Your task to perform on an android device: show emergency info Image 0: 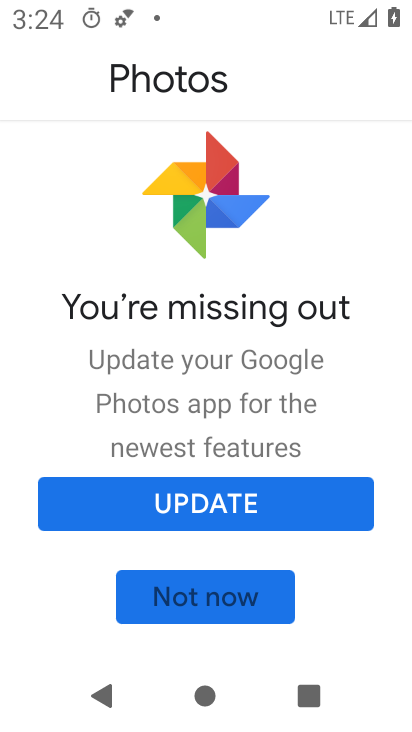
Step 0: press home button
Your task to perform on an android device: show emergency info Image 1: 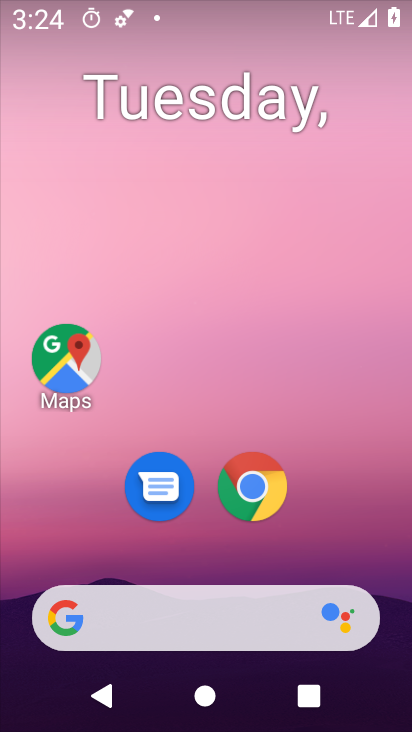
Step 1: drag from (352, 539) to (365, 132)
Your task to perform on an android device: show emergency info Image 2: 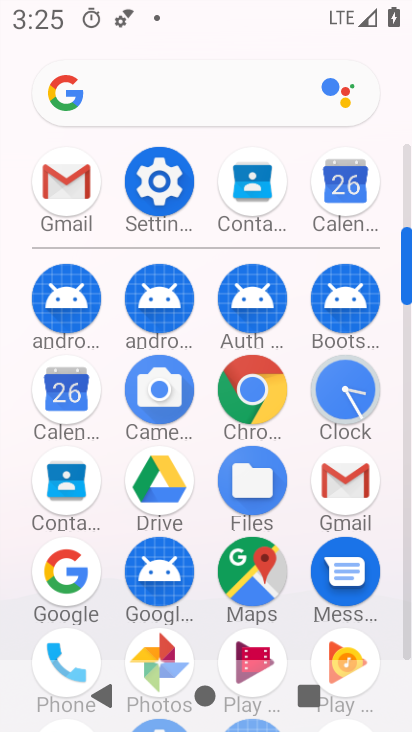
Step 2: click (162, 193)
Your task to perform on an android device: show emergency info Image 3: 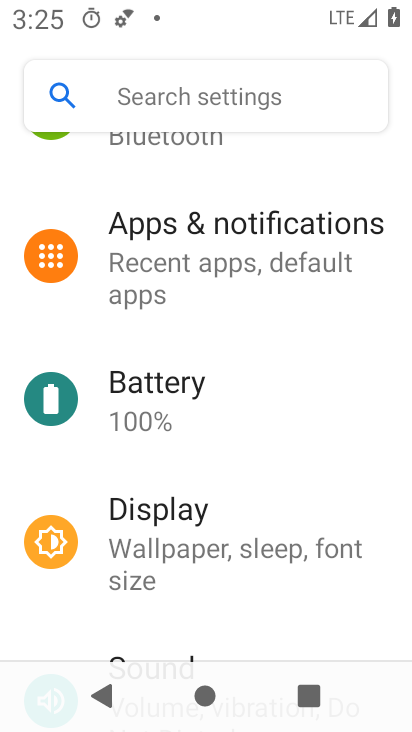
Step 3: drag from (282, 476) to (294, 374)
Your task to perform on an android device: show emergency info Image 4: 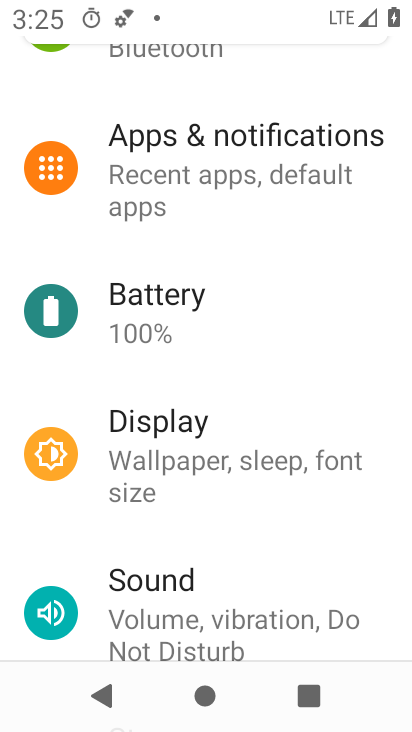
Step 4: drag from (311, 498) to (310, 406)
Your task to perform on an android device: show emergency info Image 5: 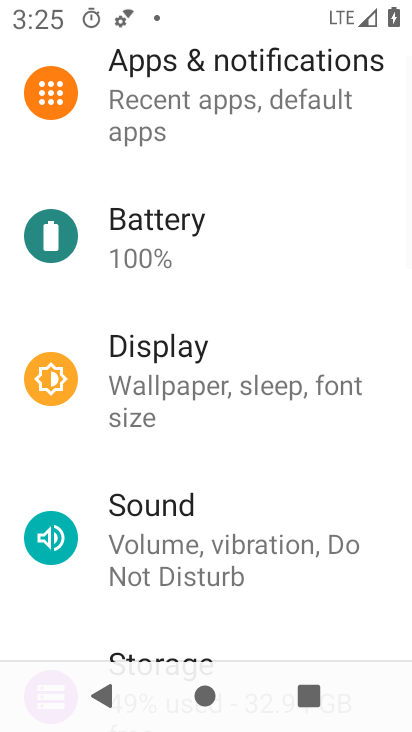
Step 5: drag from (319, 486) to (324, 369)
Your task to perform on an android device: show emergency info Image 6: 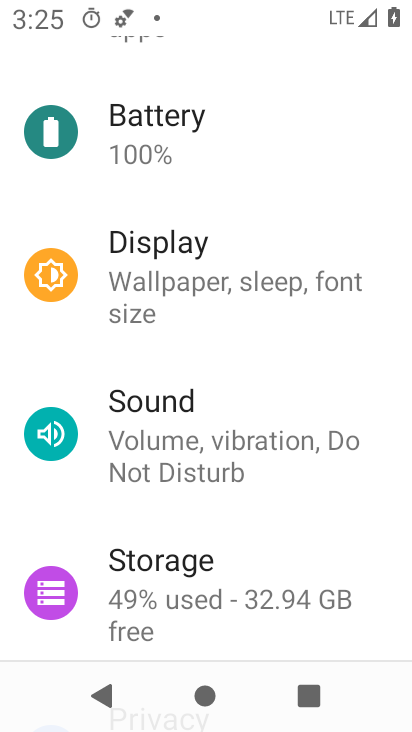
Step 6: drag from (325, 507) to (330, 406)
Your task to perform on an android device: show emergency info Image 7: 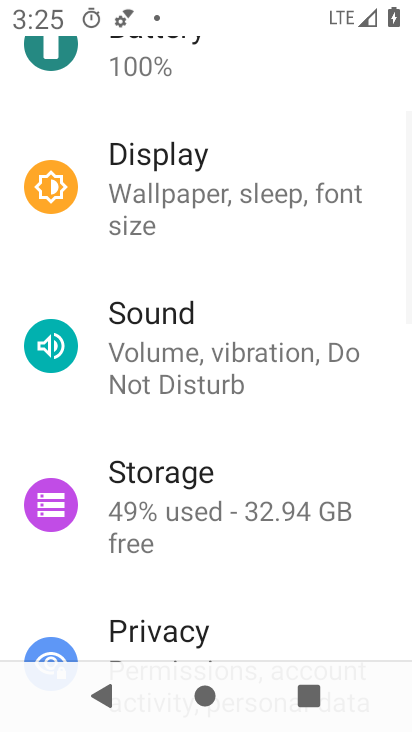
Step 7: drag from (326, 510) to (326, 423)
Your task to perform on an android device: show emergency info Image 8: 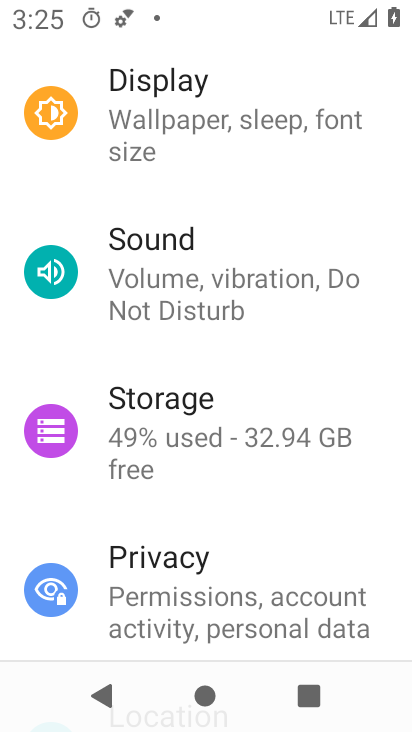
Step 8: drag from (339, 554) to (345, 420)
Your task to perform on an android device: show emergency info Image 9: 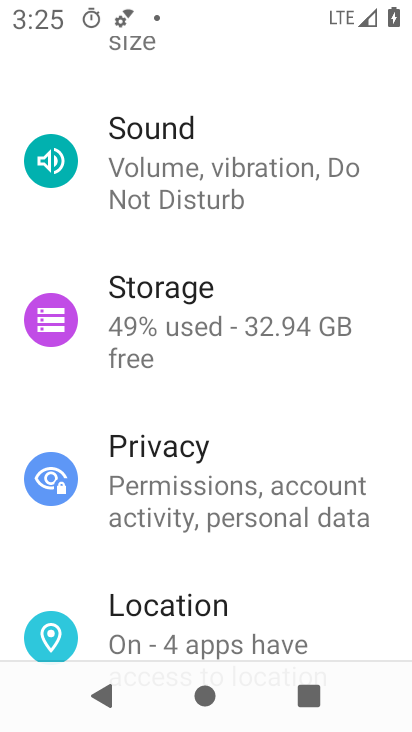
Step 9: drag from (325, 572) to (331, 469)
Your task to perform on an android device: show emergency info Image 10: 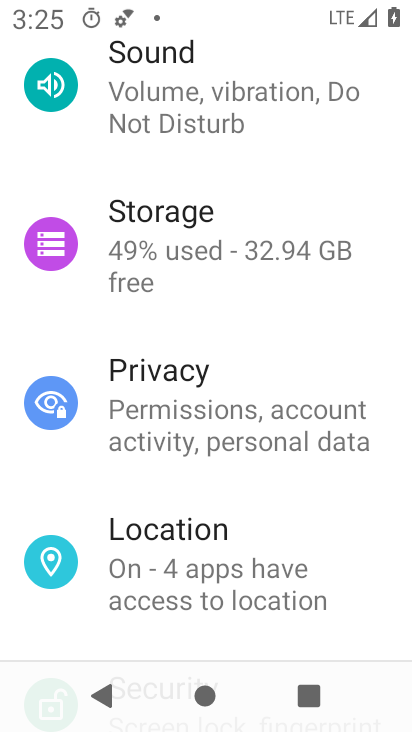
Step 10: drag from (346, 578) to (343, 479)
Your task to perform on an android device: show emergency info Image 11: 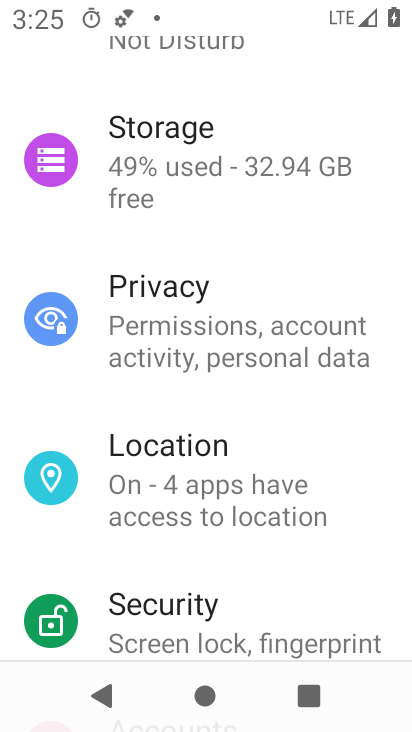
Step 11: drag from (336, 580) to (330, 460)
Your task to perform on an android device: show emergency info Image 12: 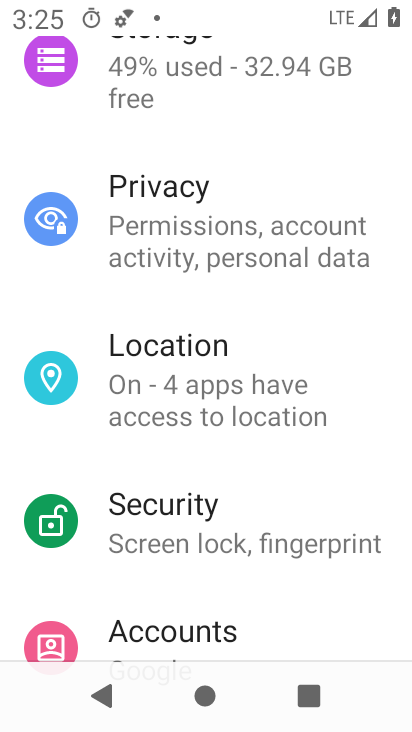
Step 12: drag from (299, 558) to (304, 381)
Your task to perform on an android device: show emergency info Image 13: 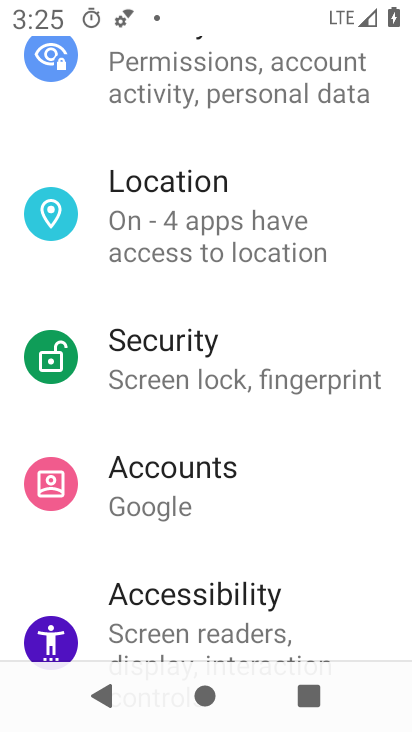
Step 13: drag from (300, 555) to (304, 382)
Your task to perform on an android device: show emergency info Image 14: 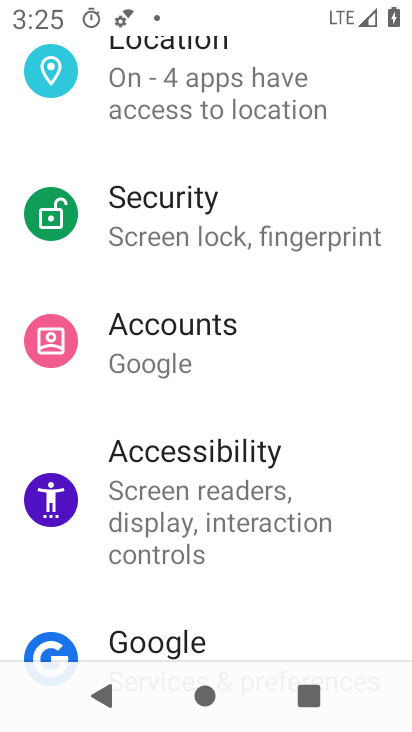
Step 14: drag from (323, 587) to (320, 438)
Your task to perform on an android device: show emergency info Image 15: 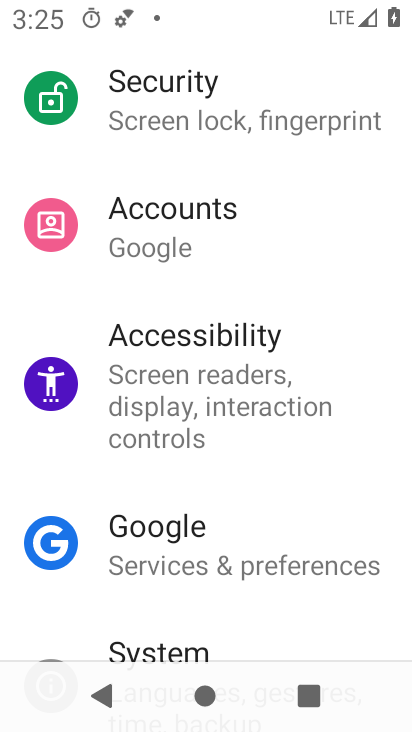
Step 15: drag from (309, 569) to (322, 437)
Your task to perform on an android device: show emergency info Image 16: 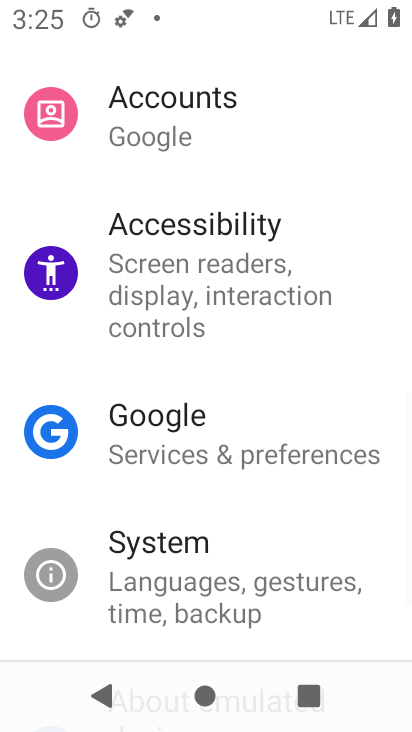
Step 16: drag from (320, 610) to (331, 416)
Your task to perform on an android device: show emergency info Image 17: 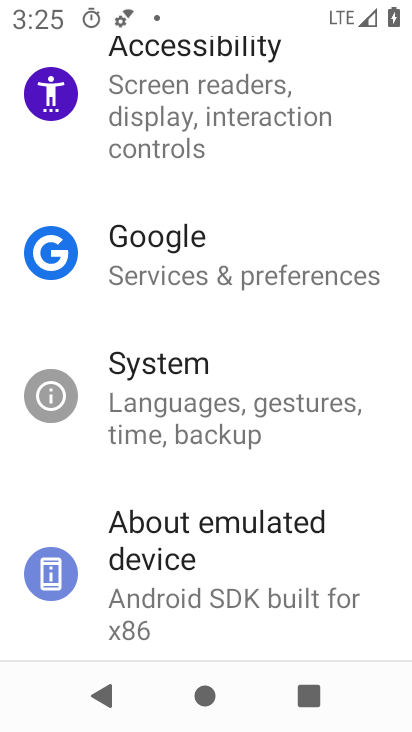
Step 17: drag from (272, 588) to (273, 463)
Your task to perform on an android device: show emergency info Image 18: 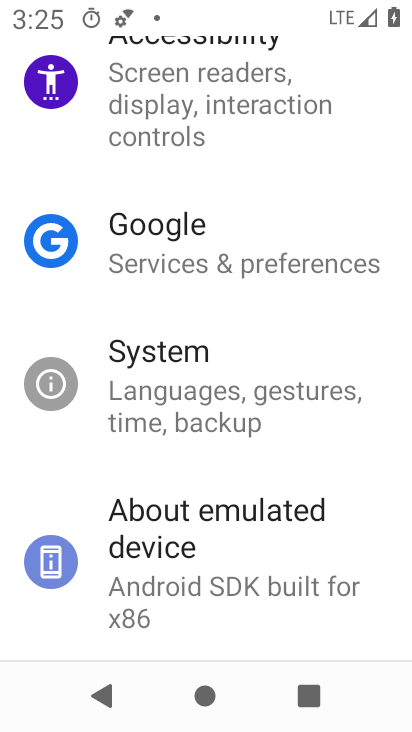
Step 18: click (265, 534)
Your task to perform on an android device: show emergency info Image 19: 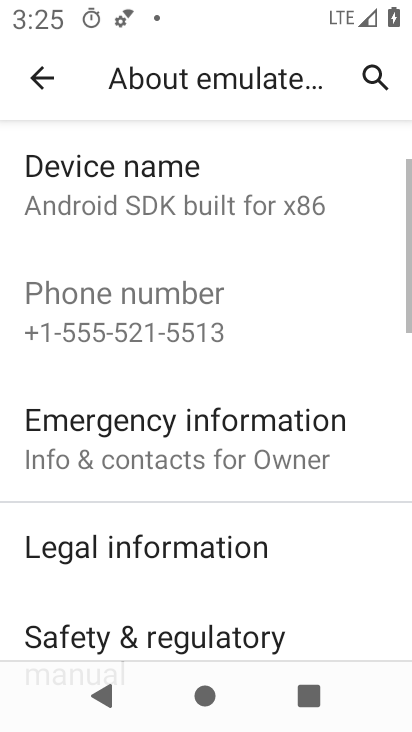
Step 19: click (276, 417)
Your task to perform on an android device: show emergency info Image 20: 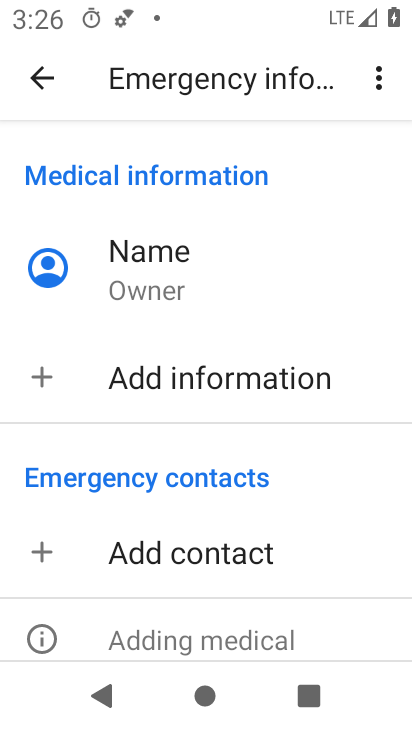
Step 20: task complete